Your task to perform on an android device: Play the last video I watched on Youtube Image 0: 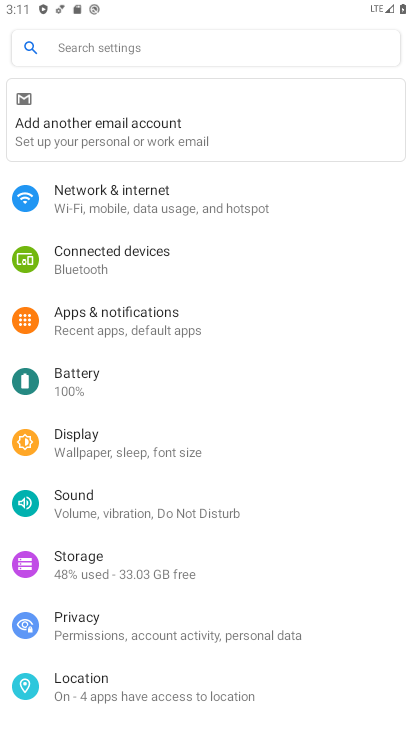
Step 0: press home button
Your task to perform on an android device: Play the last video I watched on Youtube Image 1: 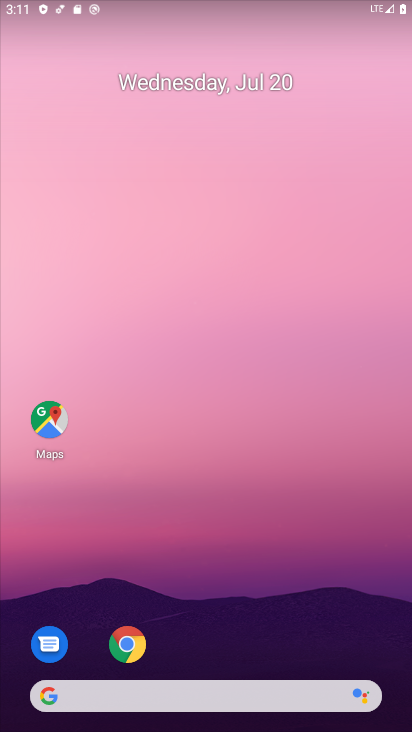
Step 1: drag from (28, 713) to (174, 288)
Your task to perform on an android device: Play the last video I watched on Youtube Image 2: 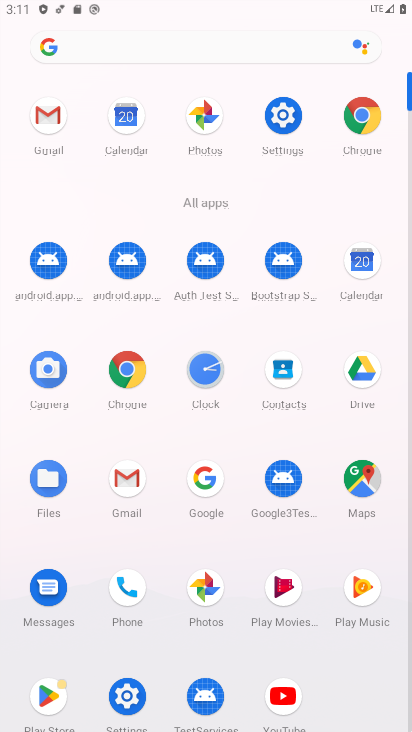
Step 2: click (276, 696)
Your task to perform on an android device: Play the last video I watched on Youtube Image 3: 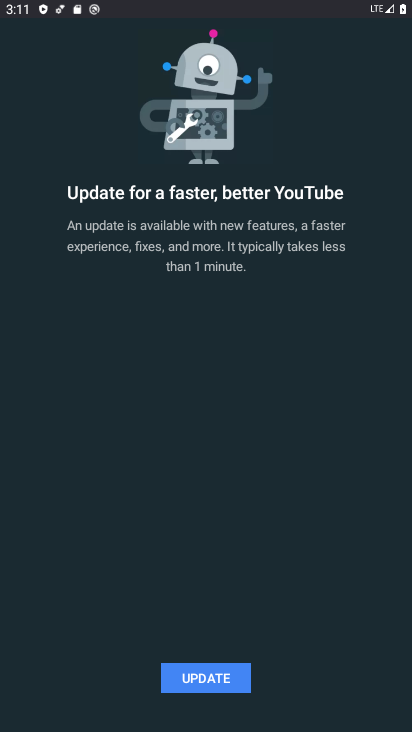
Step 3: click (212, 685)
Your task to perform on an android device: Play the last video I watched on Youtube Image 4: 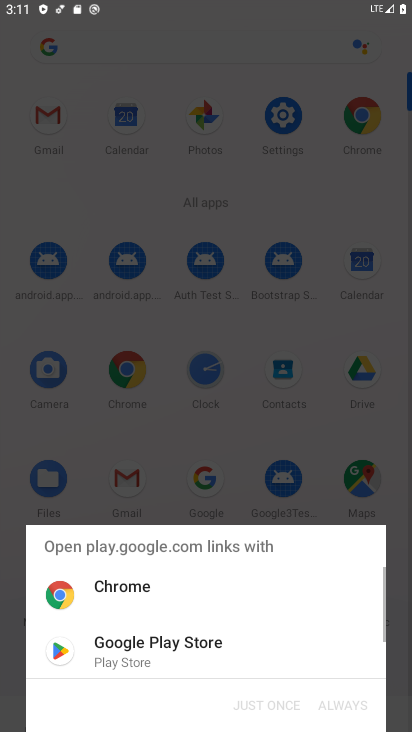
Step 4: click (154, 642)
Your task to perform on an android device: Play the last video I watched on Youtube Image 5: 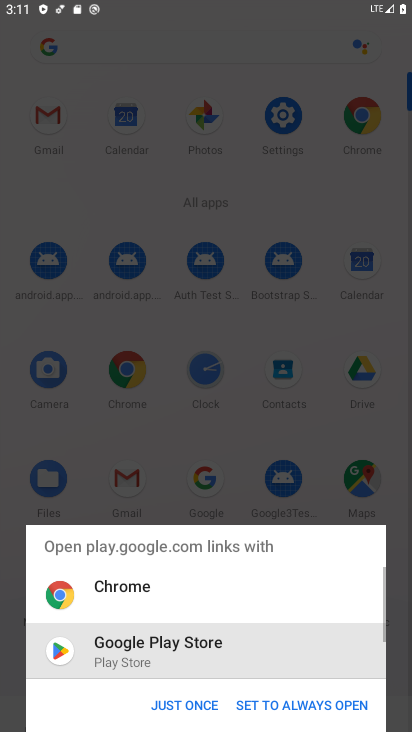
Step 5: click (201, 702)
Your task to perform on an android device: Play the last video I watched on Youtube Image 6: 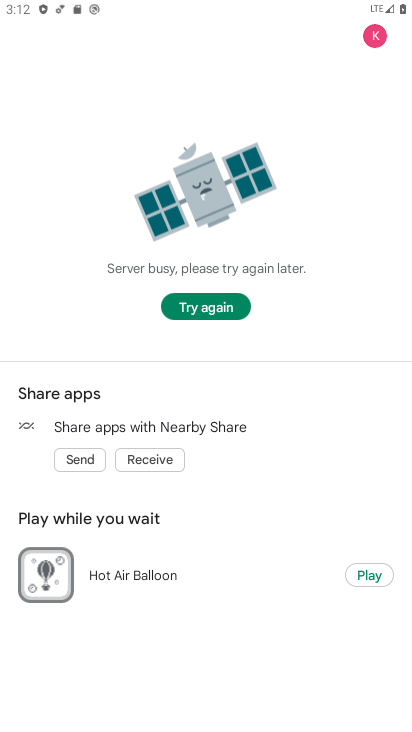
Step 6: task complete